Your task to perform on an android device: turn off wifi Image 0: 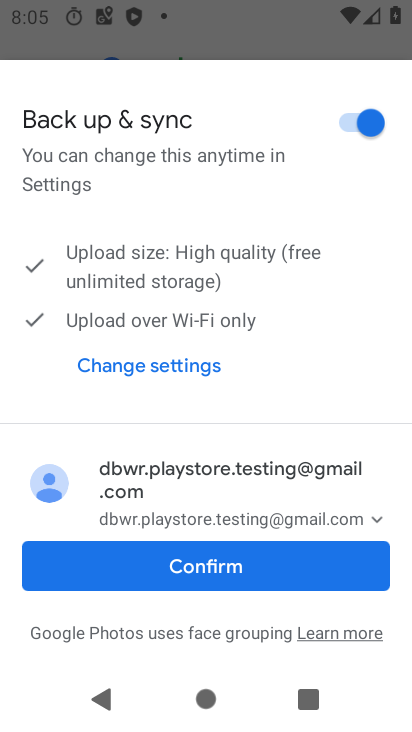
Step 0: press home button
Your task to perform on an android device: turn off wifi Image 1: 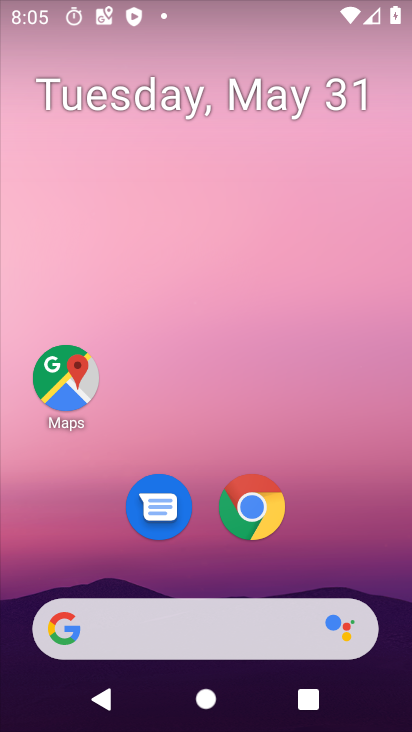
Step 1: drag from (232, 35) to (131, 297)
Your task to perform on an android device: turn off wifi Image 2: 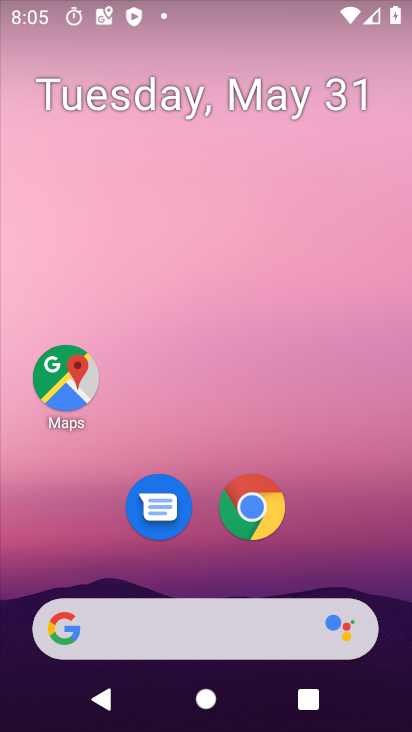
Step 2: drag from (219, 9) to (106, 345)
Your task to perform on an android device: turn off wifi Image 3: 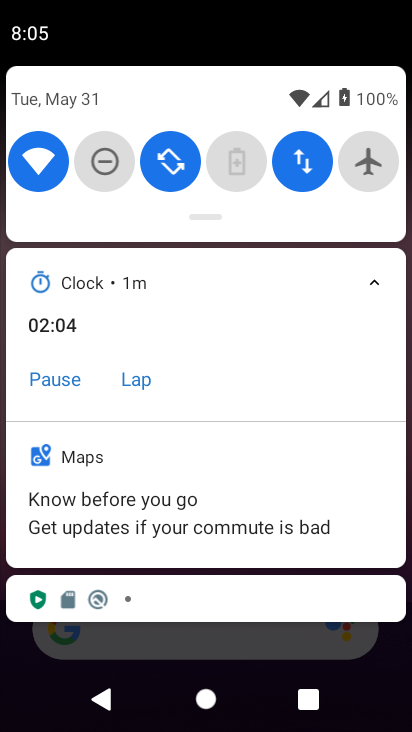
Step 3: click (39, 158)
Your task to perform on an android device: turn off wifi Image 4: 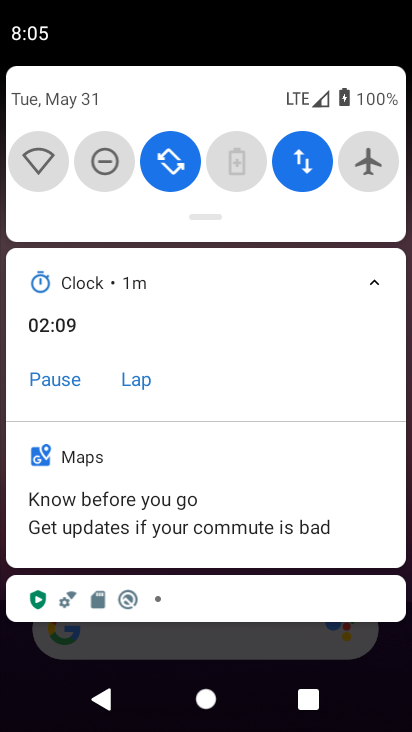
Step 4: task complete